Your task to perform on an android device: delete a single message in the gmail app Image 0: 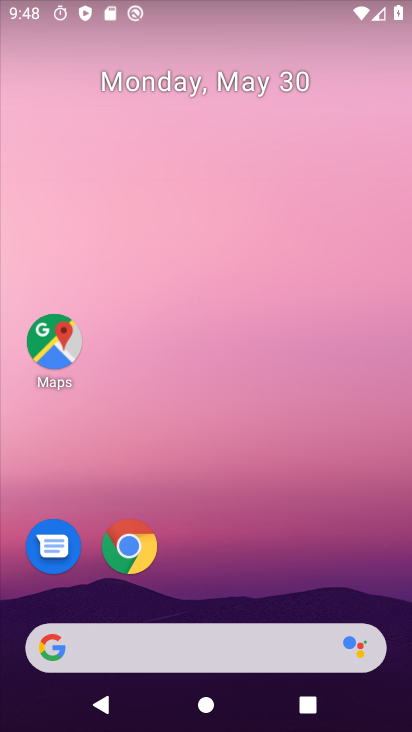
Step 0: drag from (191, 598) to (276, 133)
Your task to perform on an android device: delete a single message in the gmail app Image 1: 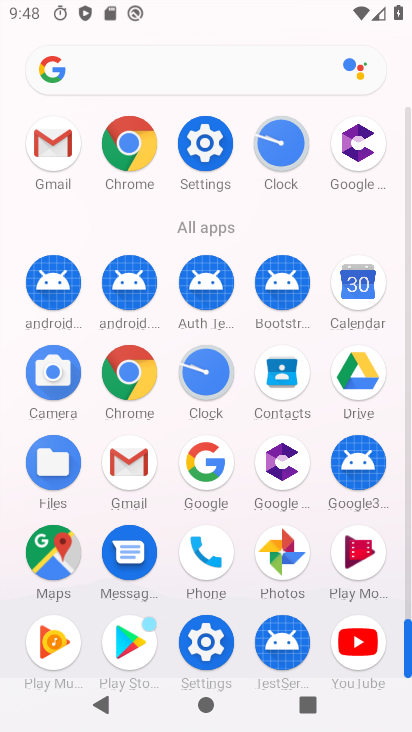
Step 1: click (133, 461)
Your task to perform on an android device: delete a single message in the gmail app Image 2: 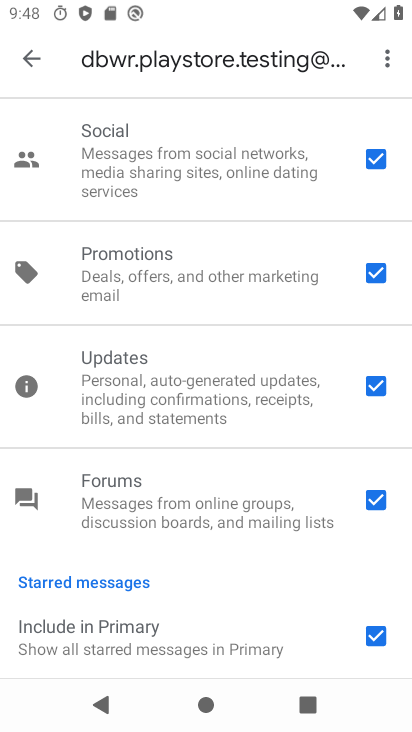
Step 2: click (33, 69)
Your task to perform on an android device: delete a single message in the gmail app Image 3: 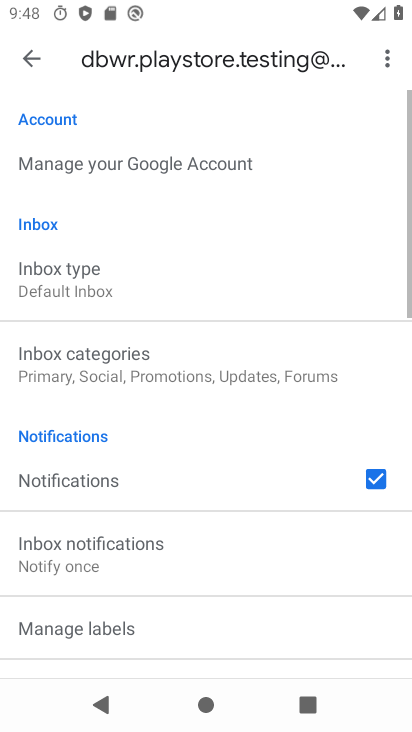
Step 3: click (33, 69)
Your task to perform on an android device: delete a single message in the gmail app Image 4: 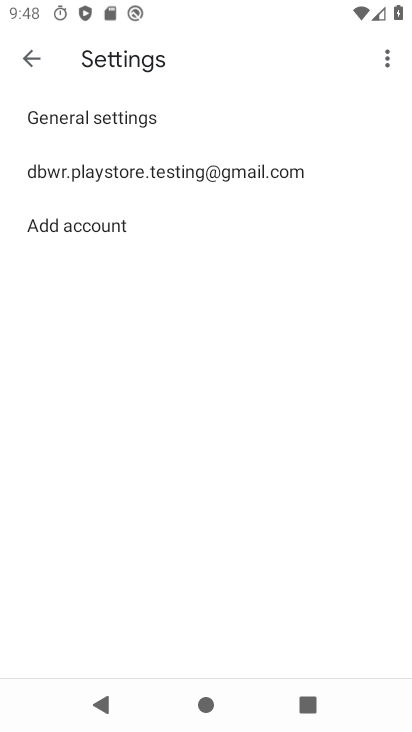
Step 4: click (31, 68)
Your task to perform on an android device: delete a single message in the gmail app Image 5: 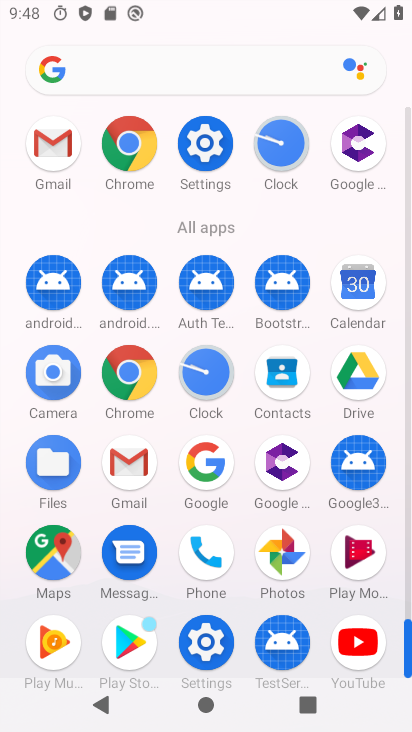
Step 5: click (132, 479)
Your task to perform on an android device: delete a single message in the gmail app Image 6: 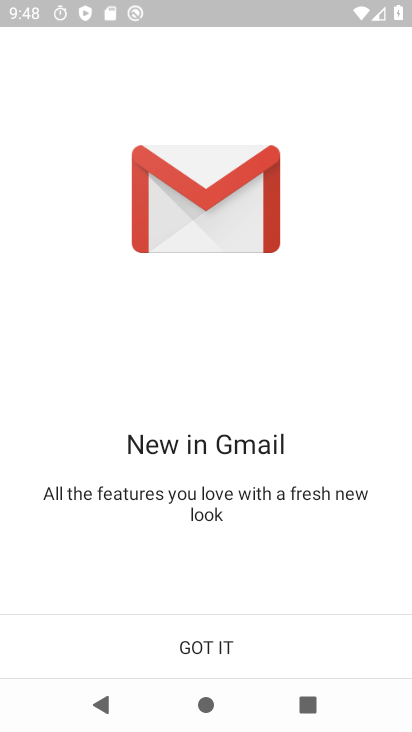
Step 6: click (277, 648)
Your task to perform on an android device: delete a single message in the gmail app Image 7: 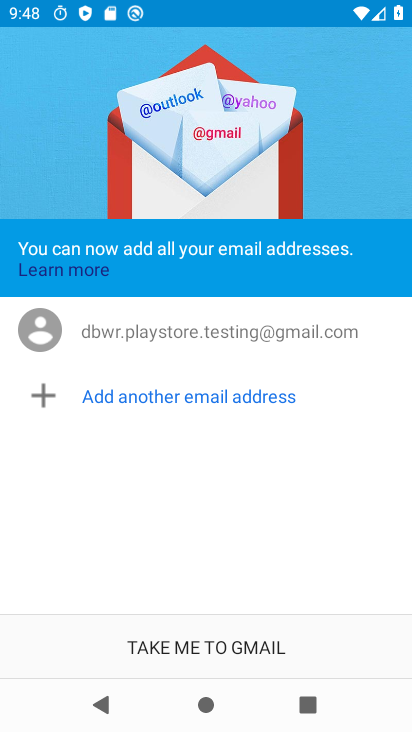
Step 7: click (281, 643)
Your task to perform on an android device: delete a single message in the gmail app Image 8: 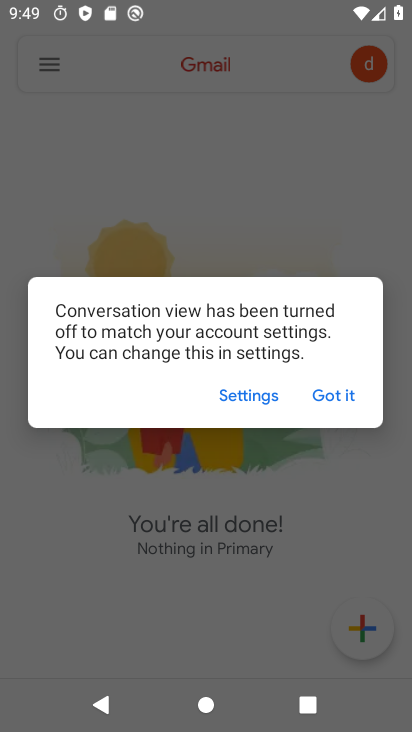
Step 8: click (340, 394)
Your task to perform on an android device: delete a single message in the gmail app Image 9: 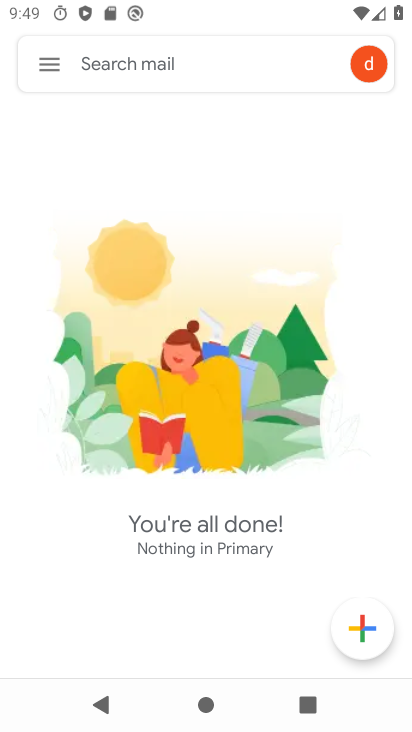
Step 9: click (66, 72)
Your task to perform on an android device: delete a single message in the gmail app Image 10: 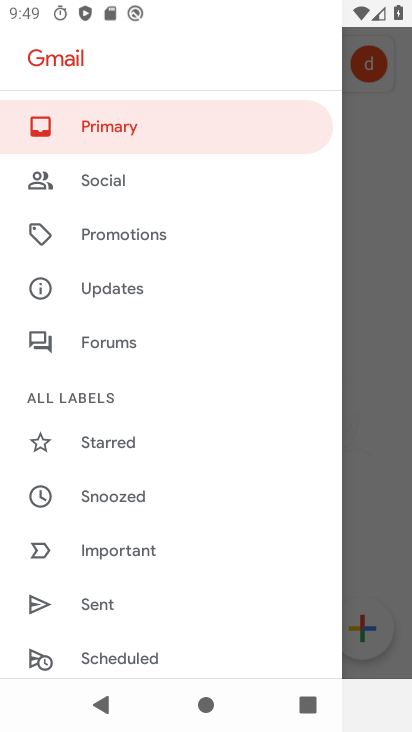
Step 10: drag from (142, 619) to (227, 254)
Your task to perform on an android device: delete a single message in the gmail app Image 11: 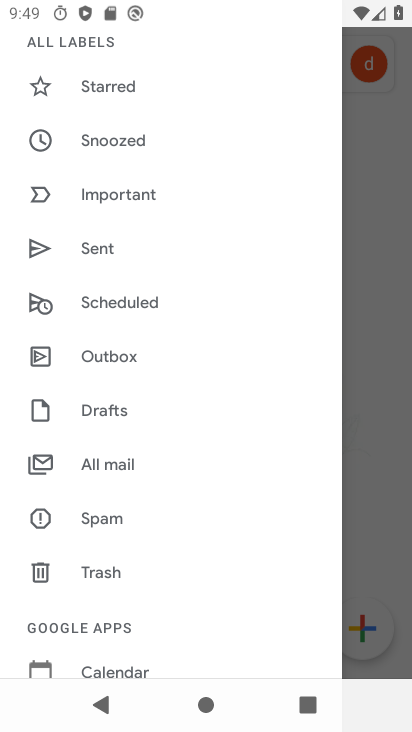
Step 11: click (162, 468)
Your task to perform on an android device: delete a single message in the gmail app Image 12: 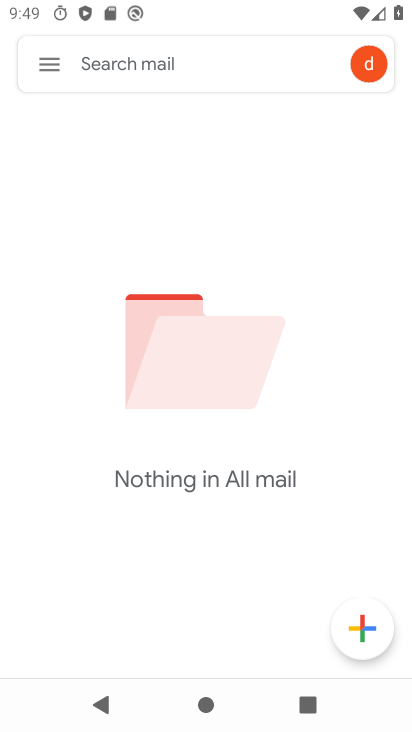
Step 12: task complete